Your task to perform on an android device: Do I have any events today? Image 0: 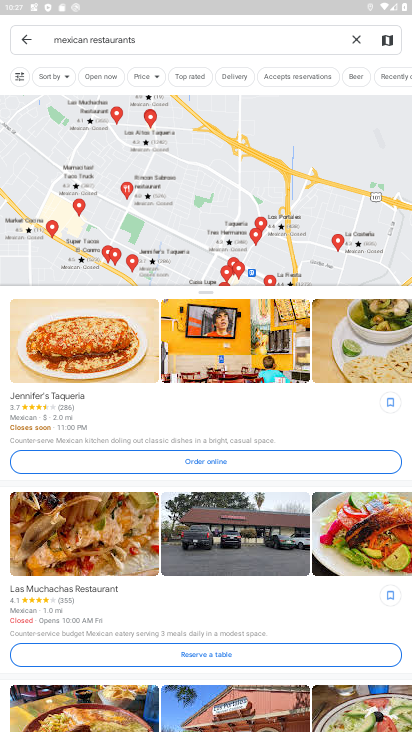
Step 0: press home button
Your task to perform on an android device: Do I have any events today? Image 1: 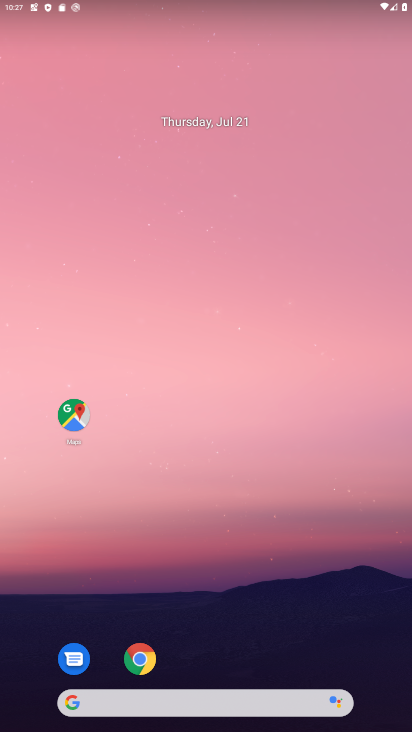
Step 1: drag from (327, 609) to (281, 55)
Your task to perform on an android device: Do I have any events today? Image 2: 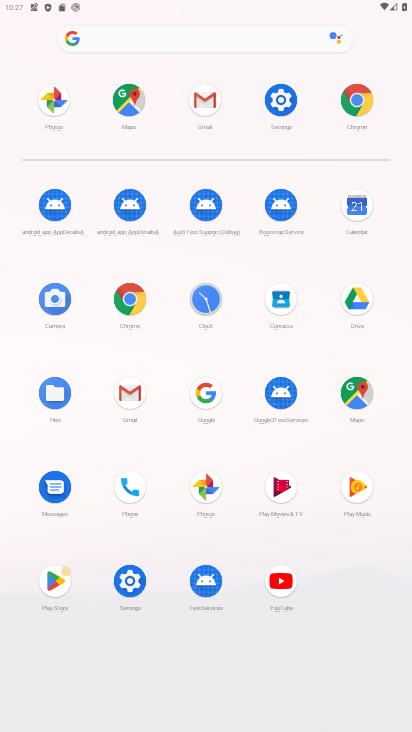
Step 2: click (356, 214)
Your task to perform on an android device: Do I have any events today? Image 3: 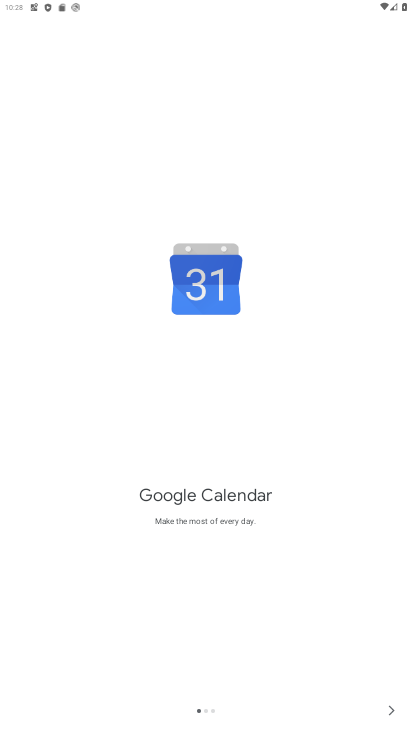
Step 3: click (388, 708)
Your task to perform on an android device: Do I have any events today? Image 4: 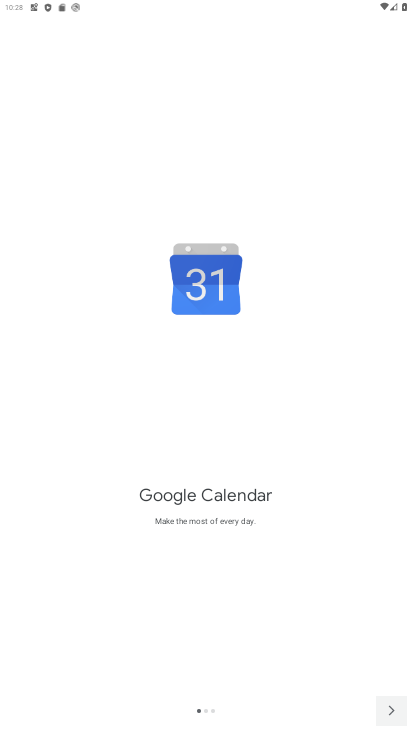
Step 4: click (388, 706)
Your task to perform on an android device: Do I have any events today? Image 5: 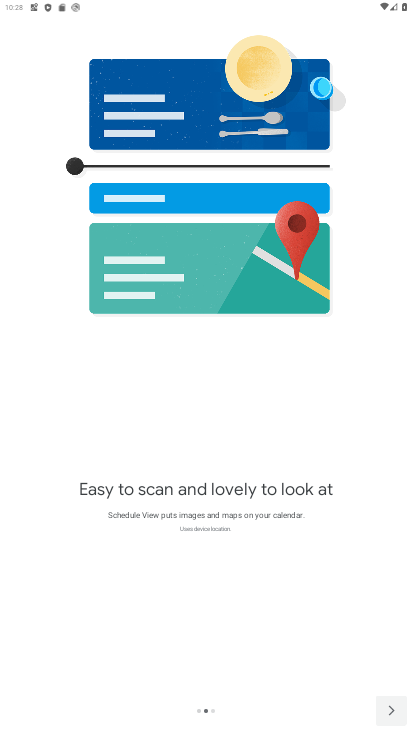
Step 5: click (388, 706)
Your task to perform on an android device: Do I have any events today? Image 6: 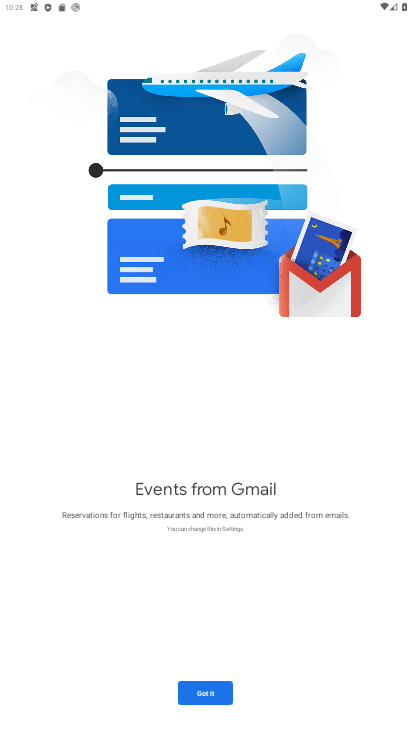
Step 6: click (388, 707)
Your task to perform on an android device: Do I have any events today? Image 7: 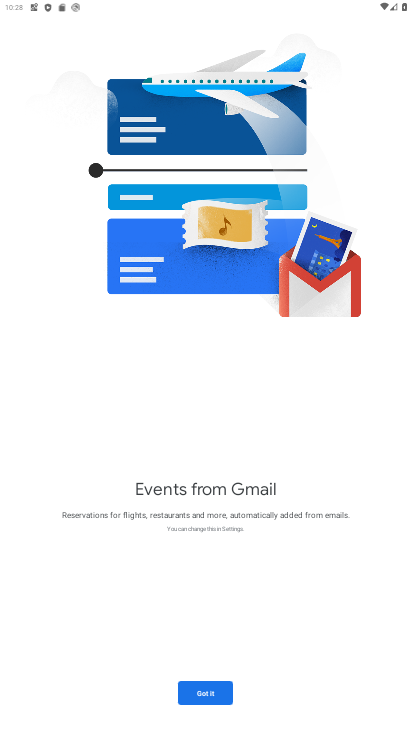
Step 7: click (226, 696)
Your task to perform on an android device: Do I have any events today? Image 8: 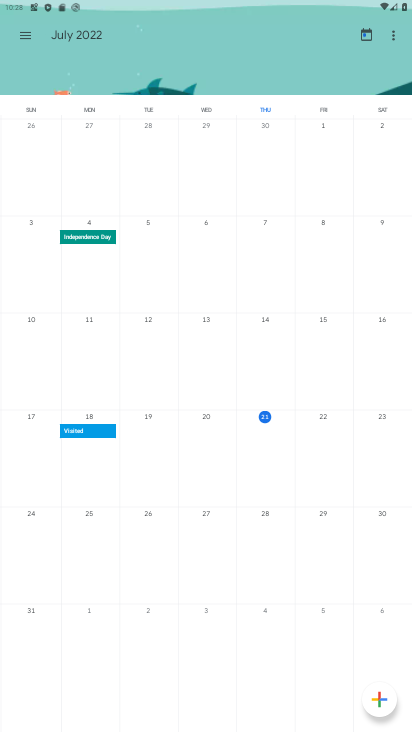
Step 8: click (264, 415)
Your task to perform on an android device: Do I have any events today? Image 9: 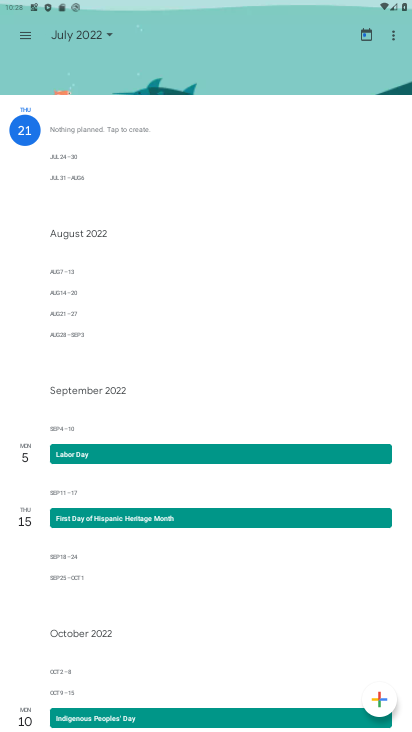
Step 9: task complete